Your task to perform on an android device: Search for the best-rated coffee table on Crate & Barrel Image 0: 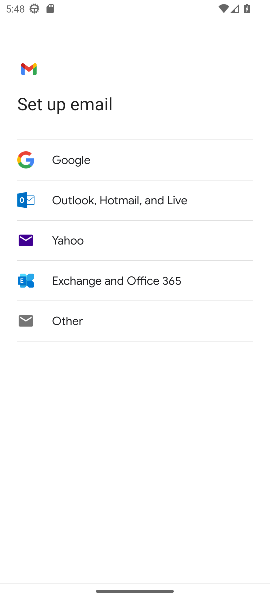
Step 0: press home button
Your task to perform on an android device: Search for the best-rated coffee table on Crate & Barrel Image 1: 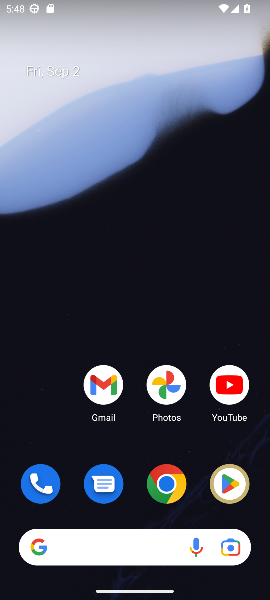
Step 1: click (171, 486)
Your task to perform on an android device: Search for the best-rated coffee table on Crate & Barrel Image 2: 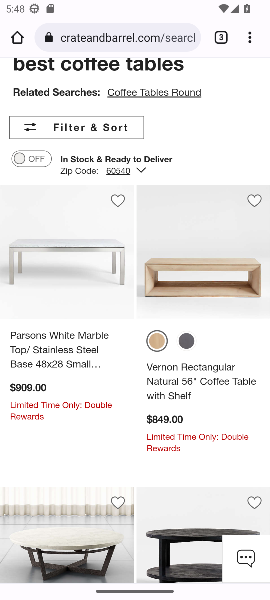
Step 2: click (156, 38)
Your task to perform on an android device: Search for the best-rated coffee table on Crate & Barrel Image 3: 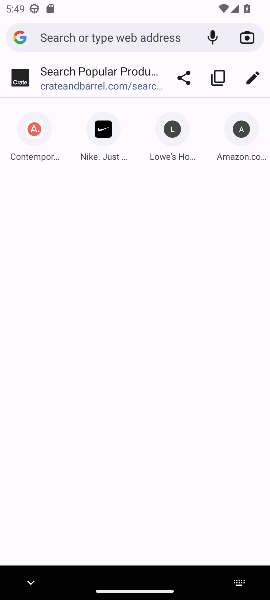
Step 3: type "Crate & Barrel"
Your task to perform on an android device: Search for the best-rated coffee table on Crate & Barrel Image 4: 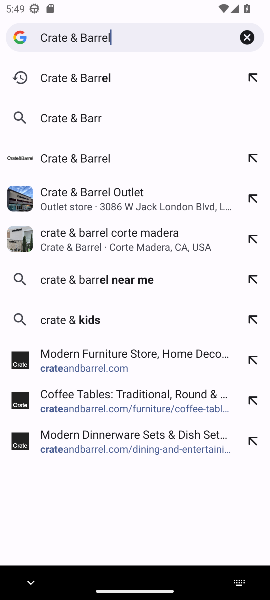
Step 4: press enter
Your task to perform on an android device: Search for the best-rated coffee table on Crate & Barrel Image 5: 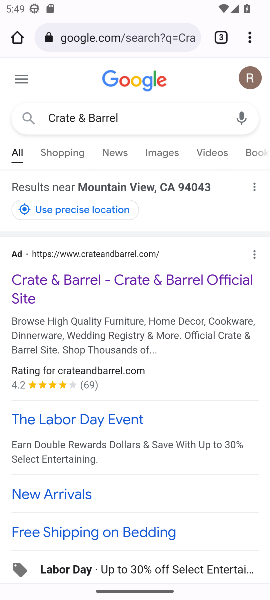
Step 5: drag from (113, 471) to (169, 140)
Your task to perform on an android device: Search for the best-rated coffee table on Crate & Barrel Image 6: 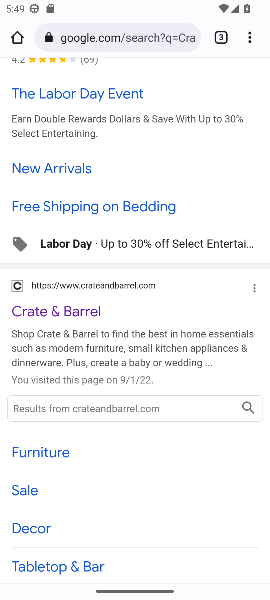
Step 6: click (86, 300)
Your task to perform on an android device: Search for the best-rated coffee table on Crate & Barrel Image 7: 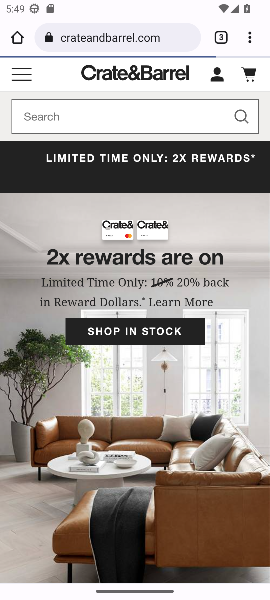
Step 7: click (87, 106)
Your task to perform on an android device: Search for the best-rated coffee table on Crate & Barrel Image 8: 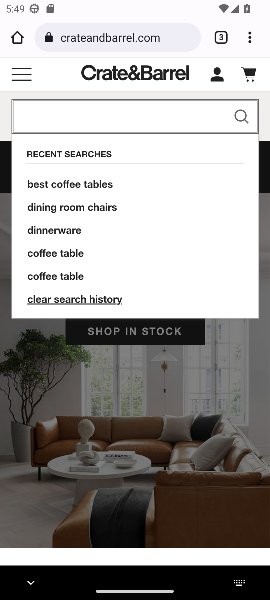
Step 8: click (62, 182)
Your task to perform on an android device: Search for the best-rated coffee table on Crate & Barrel Image 9: 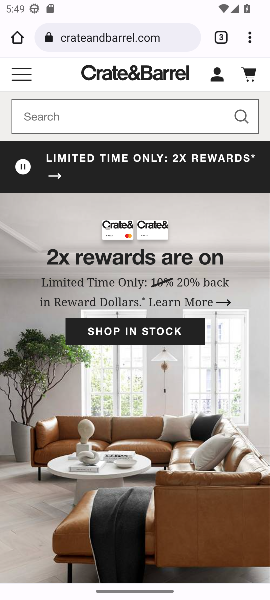
Step 9: click (44, 183)
Your task to perform on an android device: Search for the best-rated coffee table on Crate & Barrel Image 10: 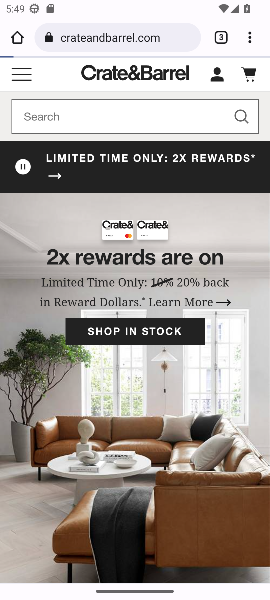
Step 10: click (76, 122)
Your task to perform on an android device: Search for the best-rated coffee table on Crate & Barrel Image 11: 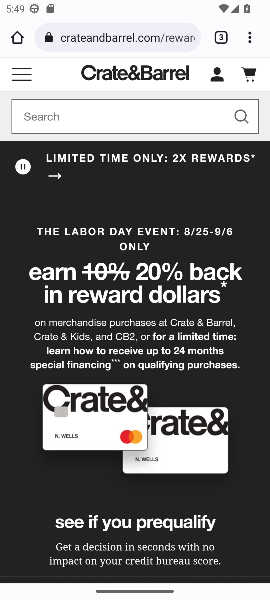
Step 11: click (76, 120)
Your task to perform on an android device: Search for the best-rated coffee table on Crate & Barrel Image 12: 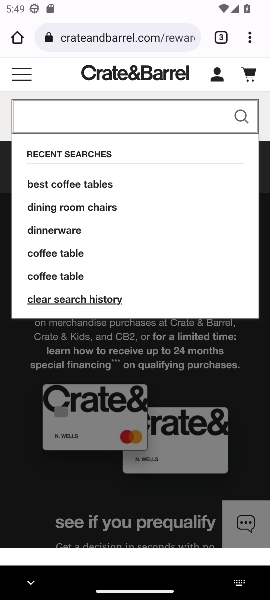
Step 12: type " best rated coffee table"
Your task to perform on an android device: Search for the best-rated coffee table on Crate & Barrel Image 13: 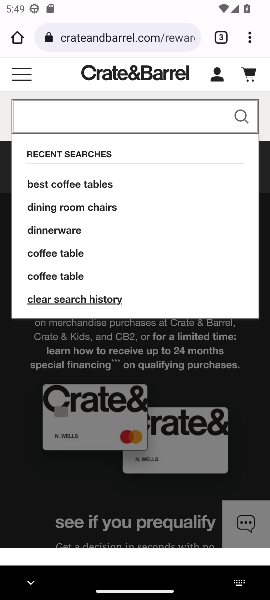
Step 13: press enter
Your task to perform on an android device: Search for the best-rated coffee table on Crate & Barrel Image 14: 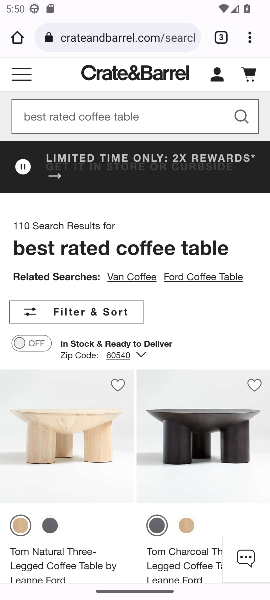
Step 14: task complete